Your task to perform on an android device: toggle wifi Image 0: 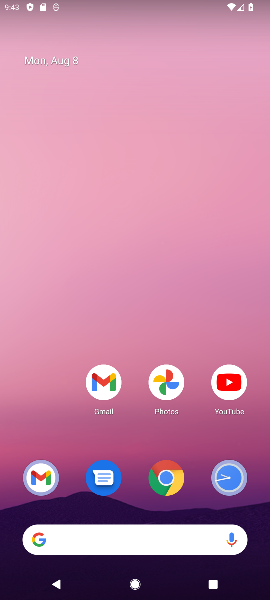
Step 0: drag from (197, 428) to (208, 73)
Your task to perform on an android device: toggle wifi Image 1: 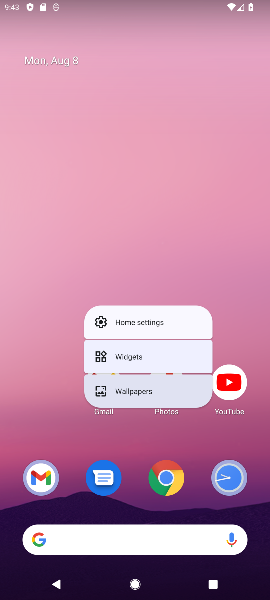
Step 1: click (166, 165)
Your task to perform on an android device: toggle wifi Image 2: 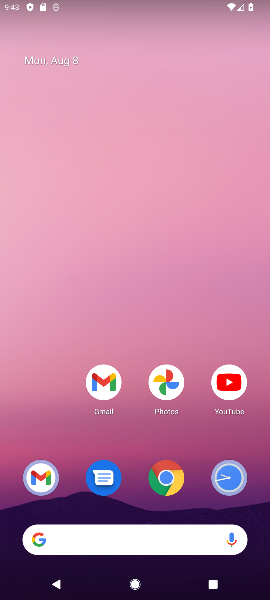
Step 2: drag from (132, 487) to (184, 99)
Your task to perform on an android device: toggle wifi Image 3: 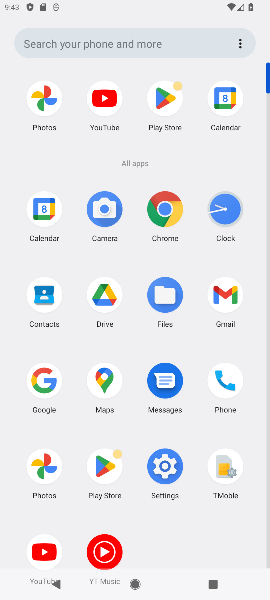
Step 3: click (167, 465)
Your task to perform on an android device: toggle wifi Image 4: 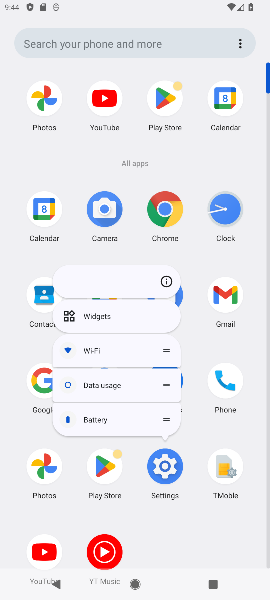
Step 4: click (168, 466)
Your task to perform on an android device: toggle wifi Image 5: 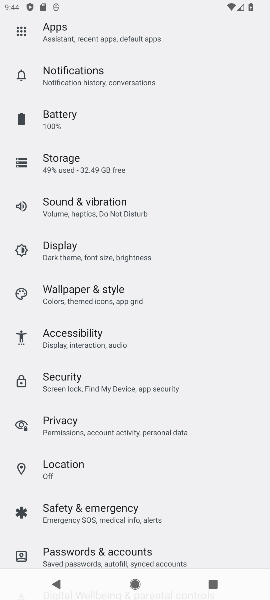
Step 5: drag from (190, 108) to (195, 478)
Your task to perform on an android device: toggle wifi Image 6: 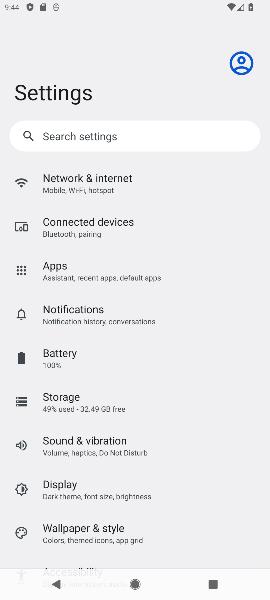
Step 6: click (95, 184)
Your task to perform on an android device: toggle wifi Image 7: 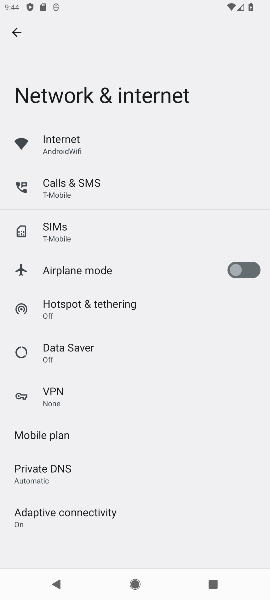
Step 7: click (144, 153)
Your task to perform on an android device: toggle wifi Image 8: 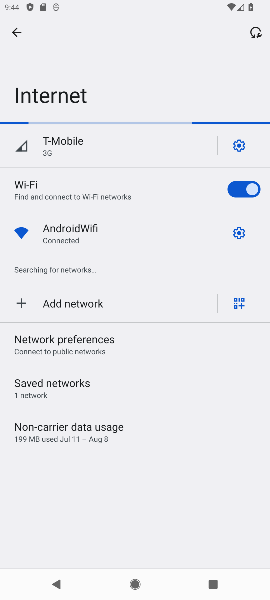
Step 8: click (234, 190)
Your task to perform on an android device: toggle wifi Image 9: 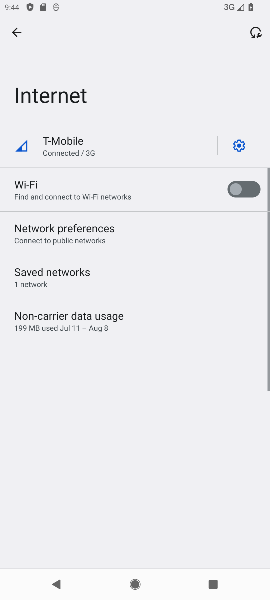
Step 9: task complete